Your task to perform on an android device: Open battery settings Image 0: 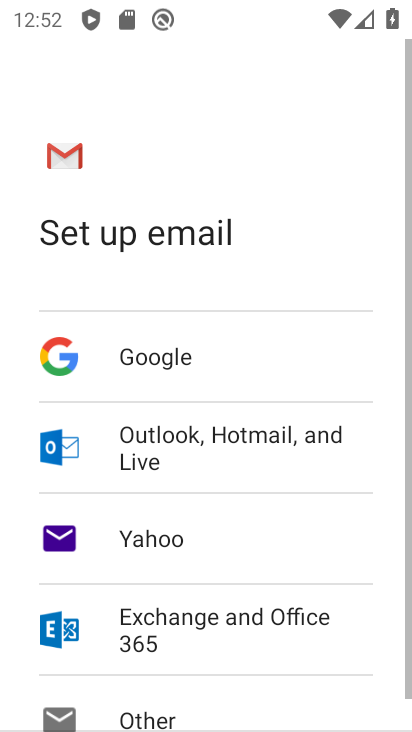
Step 0: press home button
Your task to perform on an android device: Open battery settings Image 1: 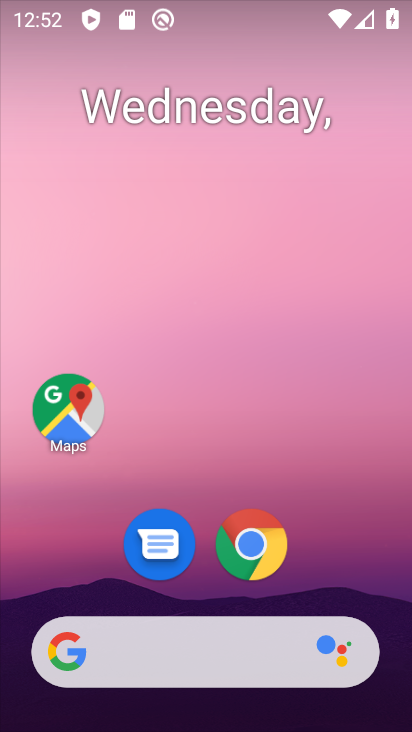
Step 1: drag from (330, 592) to (284, 365)
Your task to perform on an android device: Open battery settings Image 2: 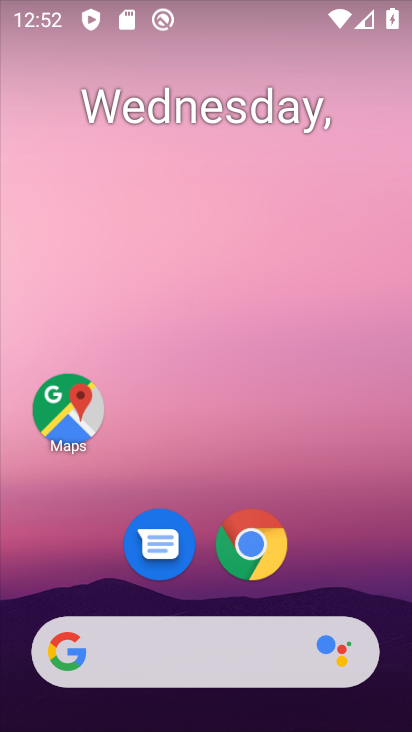
Step 2: drag from (342, 534) to (293, 112)
Your task to perform on an android device: Open battery settings Image 3: 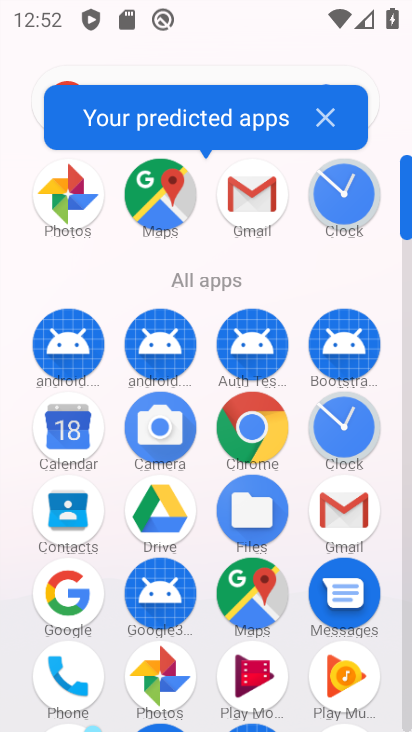
Step 3: drag from (290, 567) to (298, 196)
Your task to perform on an android device: Open battery settings Image 4: 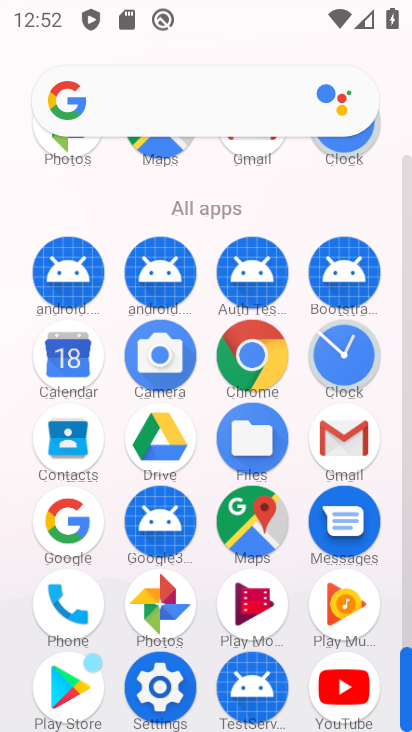
Step 4: click (158, 696)
Your task to perform on an android device: Open battery settings Image 5: 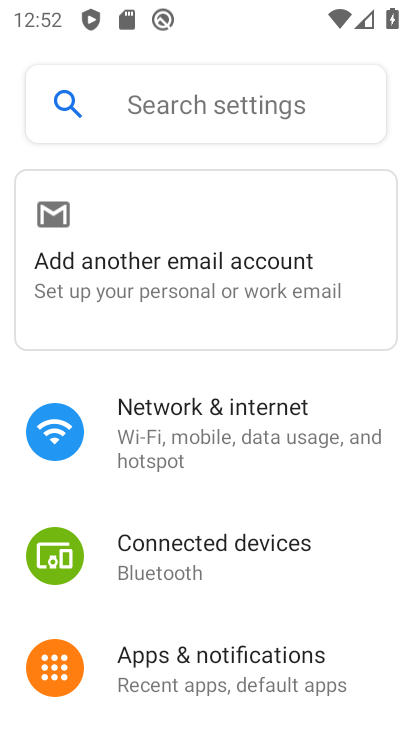
Step 5: drag from (301, 623) to (302, 174)
Your task to perform on an android device: Open battery settings Image 6: 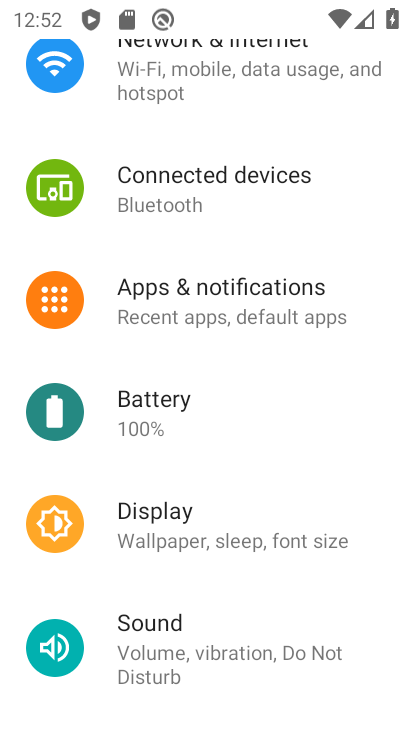
Step 6: click (176, 408)
Your task to perform on an android device: Open battery settings Image 7: 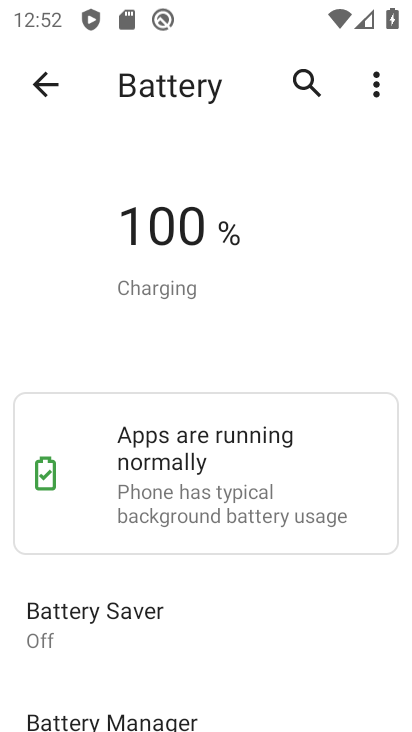
Step 7: task complete